Your task to perform on an android device: open chrome and create a bookmark for the current page Image 0: 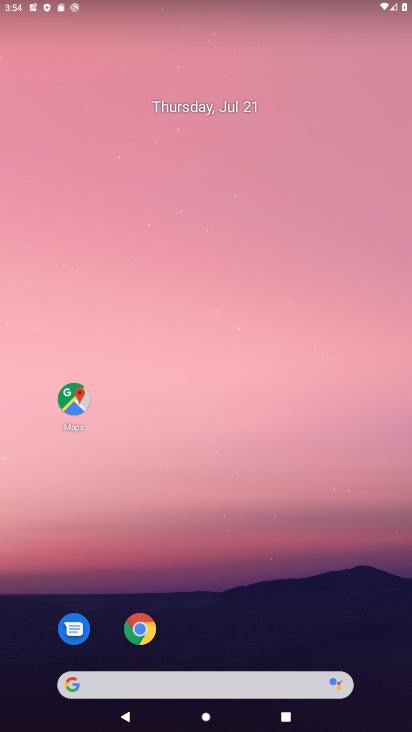
Step 0: drag from (226, 570) to (239, 136)
Your task to perform on an android device: open chrome and create a bookmark for the current page Image 1: 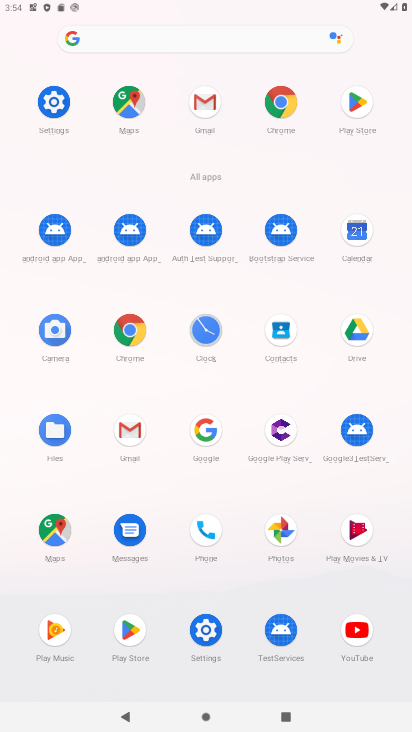
Step 1: click (273, 100)
Your task to perform on an android device: open chrome and create a bookmark for the current page Image 2: 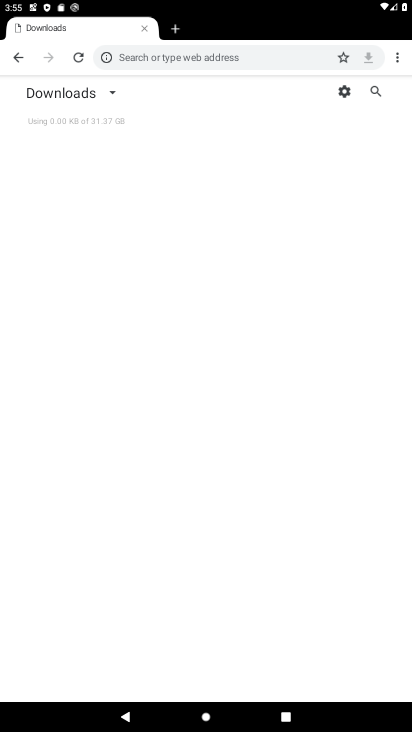
Step 2: drag from (409, 62) to (118, 220)
Your task to perform on an android device: open chrome and create a bookmark for the current page Image 3: 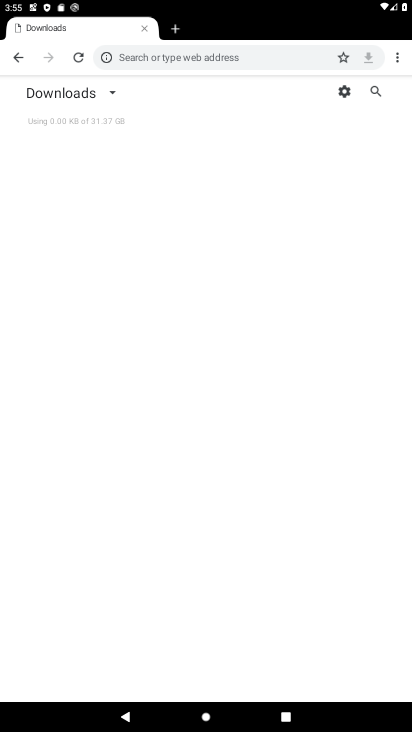
Step 3: click (339, 59)
Your task to perform on an android device: open chrome and create a bookmark for the current page Image 4: 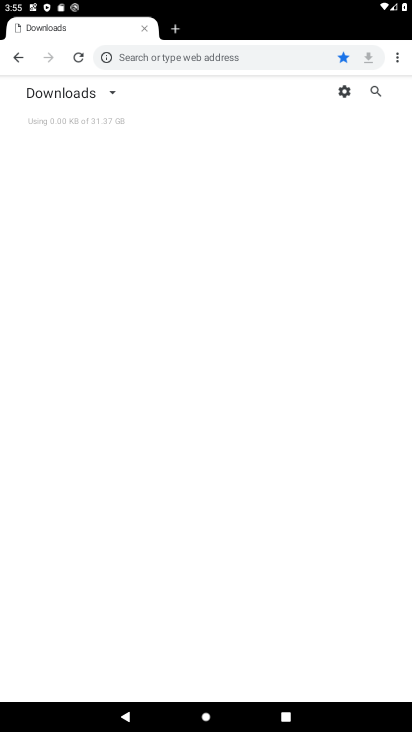
Step 4: task complete